Your task to perform on an android device: Show me recent news Image 0: 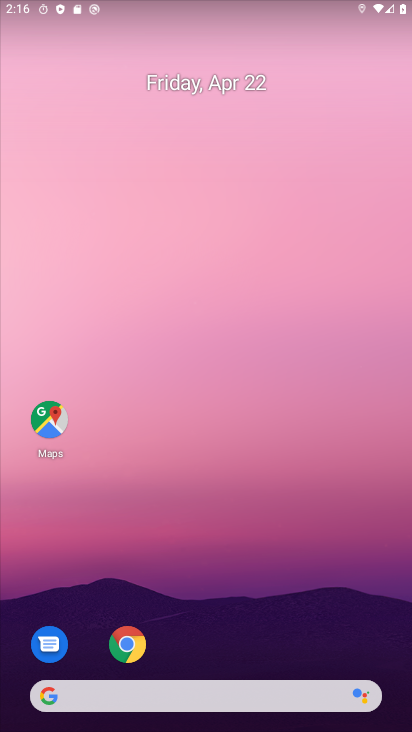
Step 0: drag from (253, 665) to (198, 204)
Your task to perform on an android device: Show me recent news Image 1: 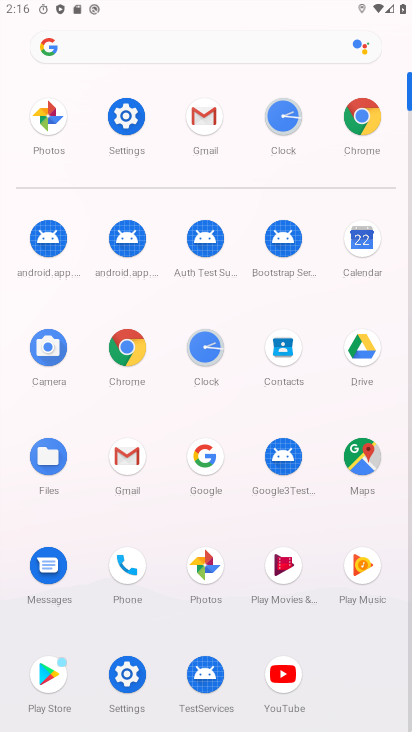
Step 1: click (207, 474)
Your task to perform on an android device: Show me recent news Image 2: 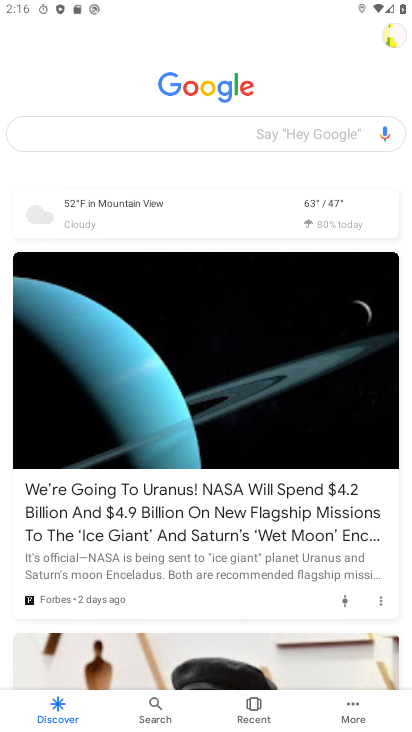
Step 2: click (163, 130)
Your task to perform on an android device: Show me recent news Image 3: 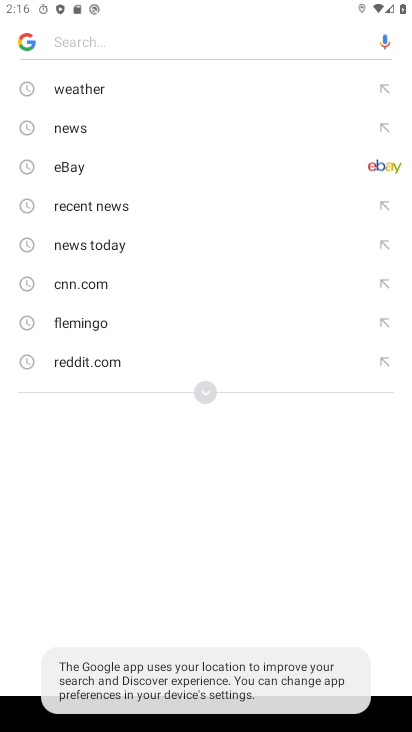
Step 3: click (81, 127)
Your task to perform on an android device: Show me recent news Image 4: 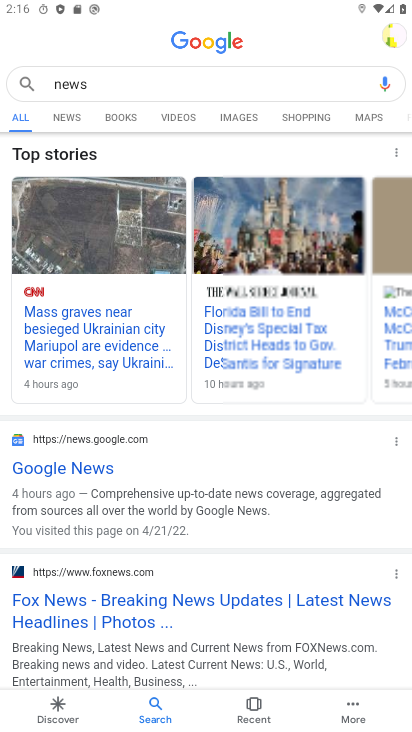
Step 4: task complete